Your task to perform on an android device: Open ESPN.com Image 0: 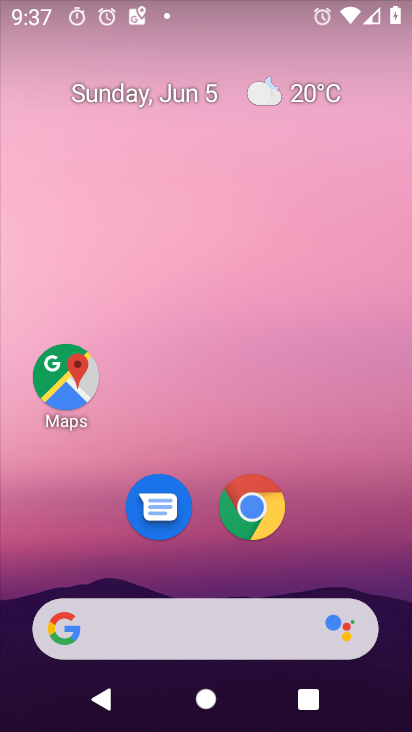
Step 0: drag from (349, 554) to (224, 29)
Your task to perform on an android device: Open ESPN.com Image 1: 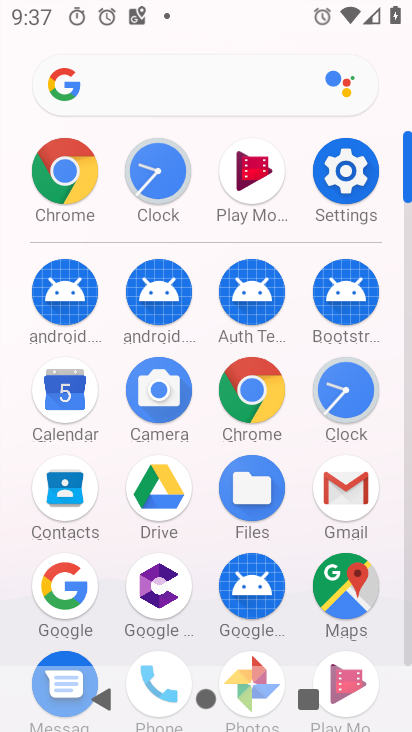
Step 1: click (66, 162)
Your task to perform on an android device: Open ESPN.com Image 2: 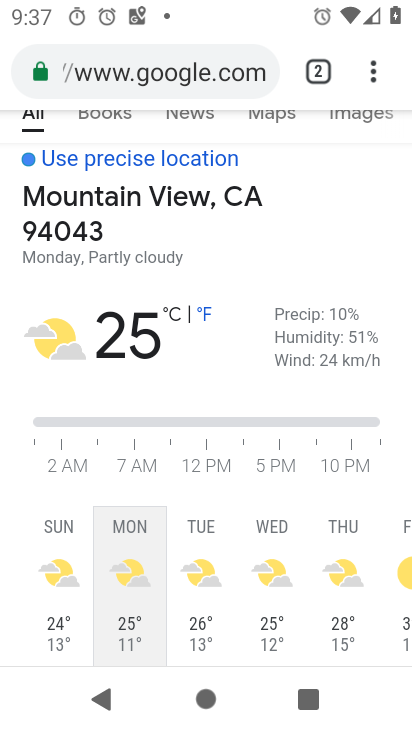
Step 2: click (172, 60)
Your task to perform on an android device: Open ESPN.com Image 3: 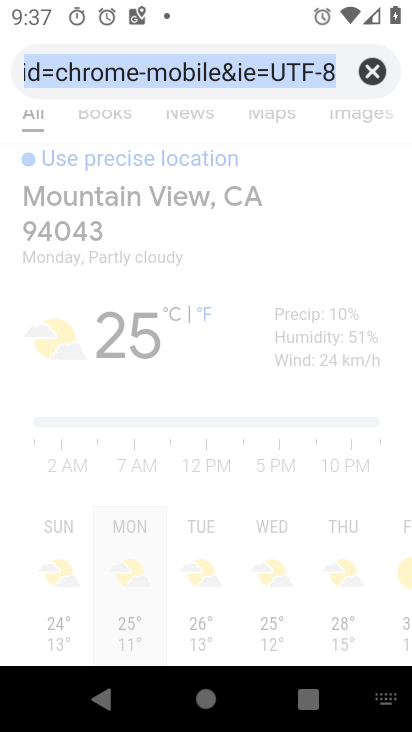
Step 3: click (367, 69)
Your task to perform on an android device: Open ESPN.com Image 4: 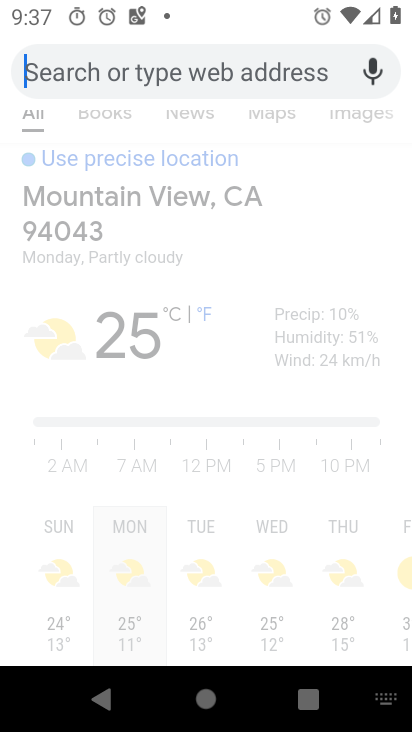
Step 4: type "ESPN.com"
Your task to perform on an android device: Open ESPN.com Image 5: 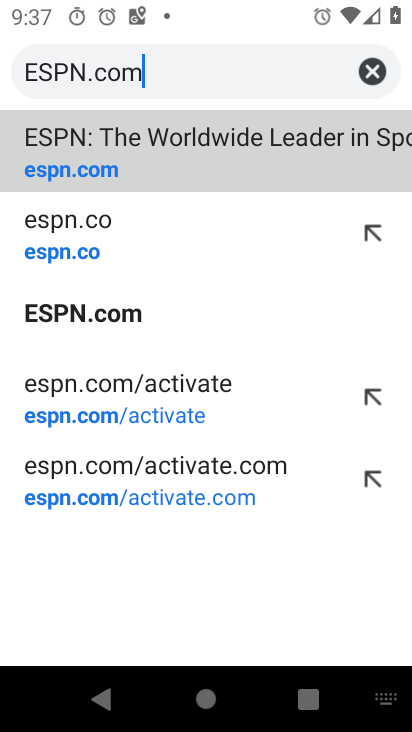
Step 5: type ""
Your task to perform on an android device: Open ESPN.com Image 6: 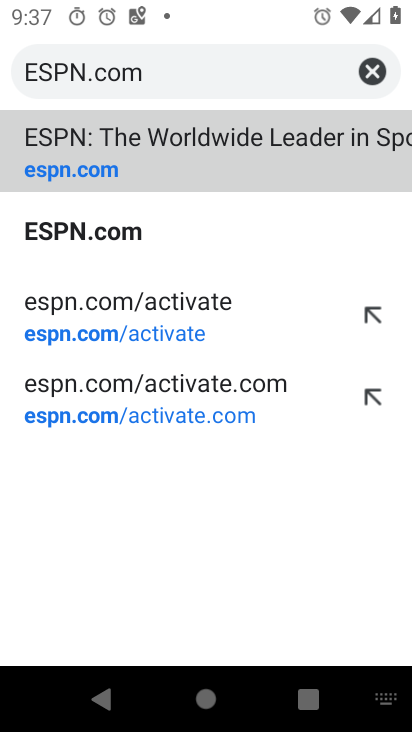
Step 6: click (162, 148)
Your task to perform on an android device: Open ESPN.com Image 7: 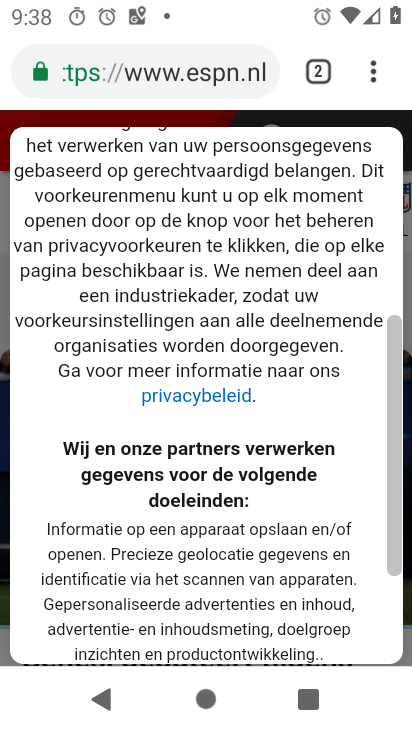
Step 7: drag from (305, 620) to (298, 169)
Your task to perform on an android device: Open ESPN.com Image 8: 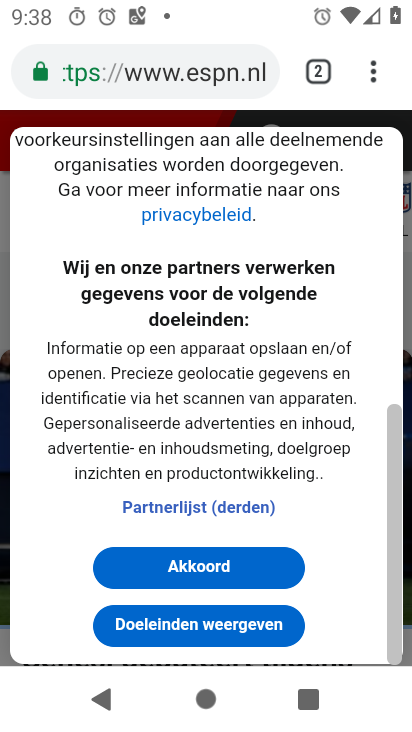
Step 8: click (205, 568)
Your task to perform on an android device: Open ESPN.com Image 9: 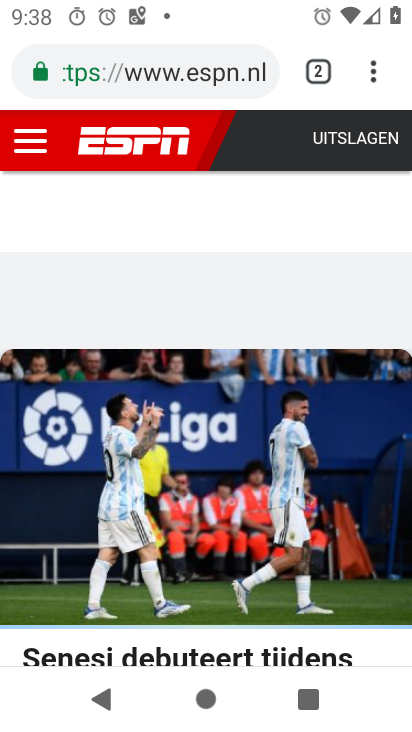
Step 9: task complete